Your task to perform on an android device: turn off sleep mode Image 0: 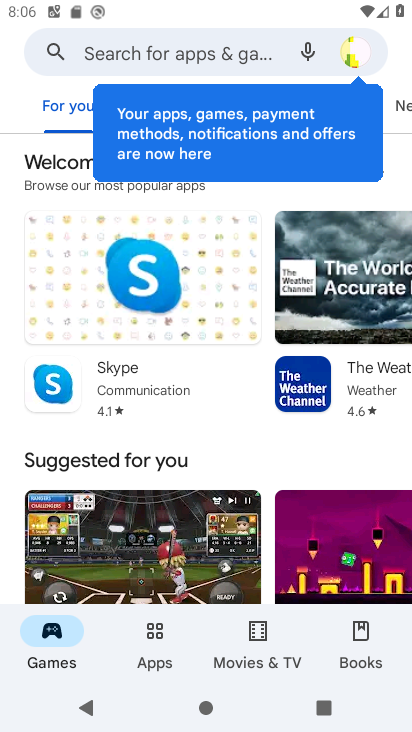
Step 0: press home button
Your task to perform on an android device: turn off sleep mode Image 1: 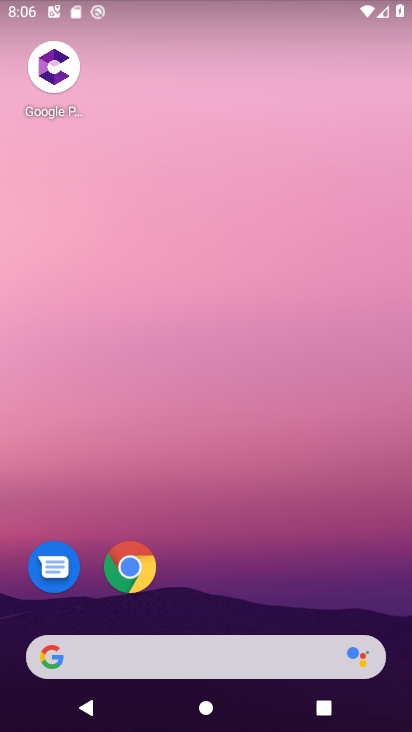
Step 1: drag from (286, 583) to (229, 2)
Your task to perform on an android device: turn off sleep mode Image 2: 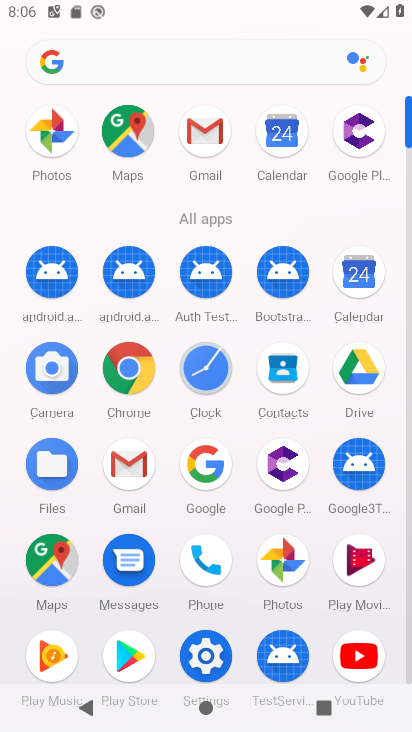
Step 2: click (198, 657)
Your task to perform on an android device: turn off sleep mode Image 3: 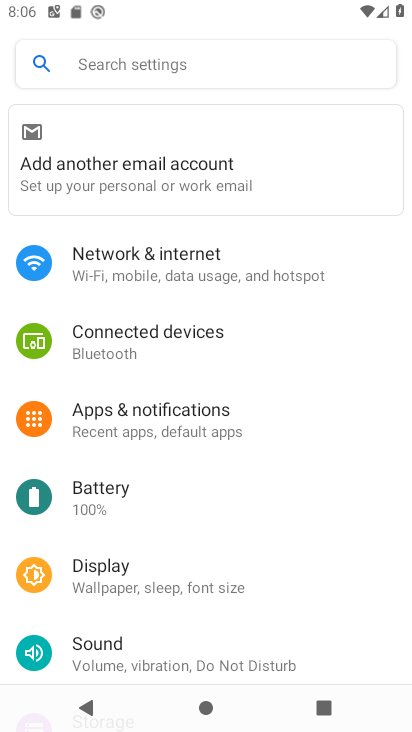
Step 3: click (199, 562)
Your task to perform on an android device: turn off sleep mode Image 4: 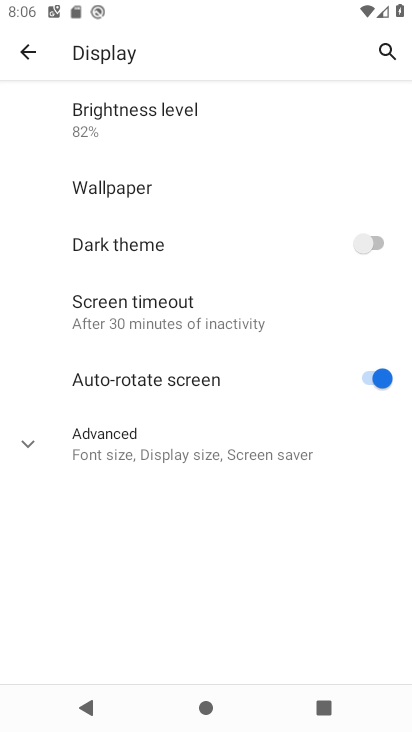
Step 4: task complete